Your task to perform on an android device: Go to settings Image 0: 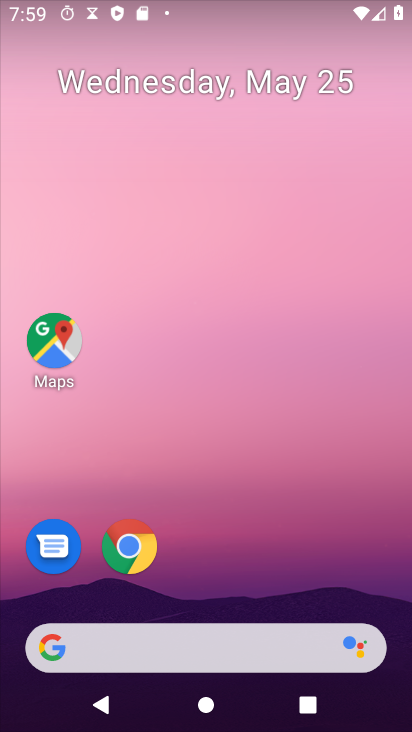
Step 0: drag from (187, 577) to (179, 3)
Your task to perform on an android device: Go to settings Image 1: 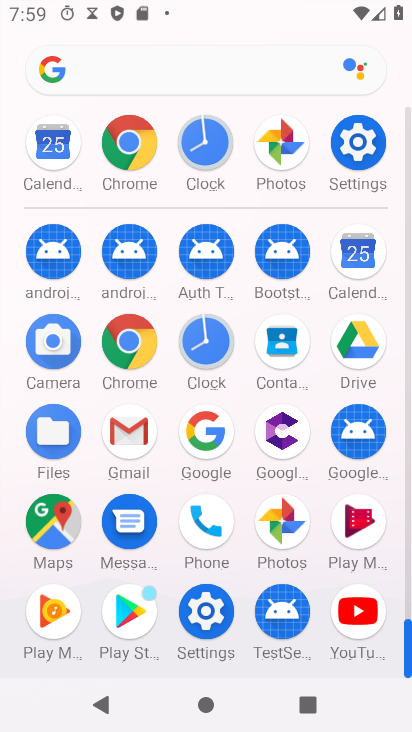
Step 1: click (342, 178)
Your task to perform on an android device: Go to settings Image 2: 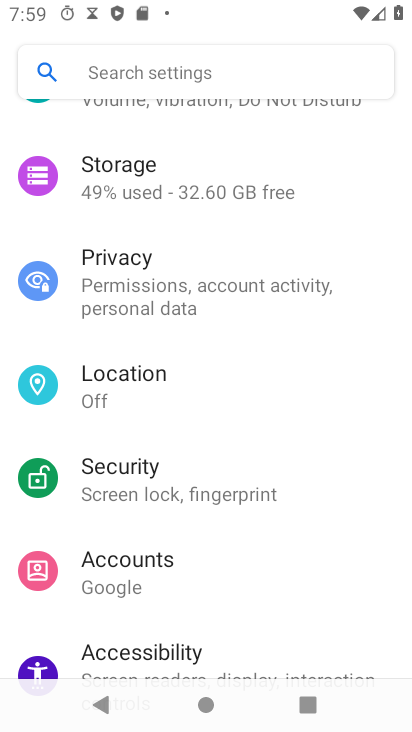
Step 2: task complete